Your task to perform on an android device: Open Amazon Image 0: 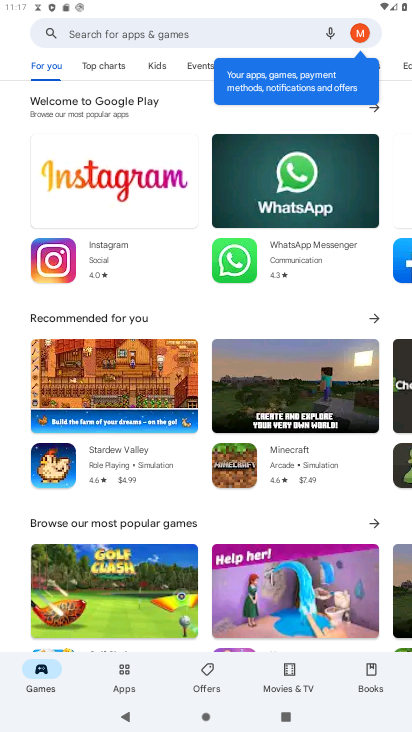
Step 0: press home button
Your task to perform on an android device: Open Amazon Image 1: 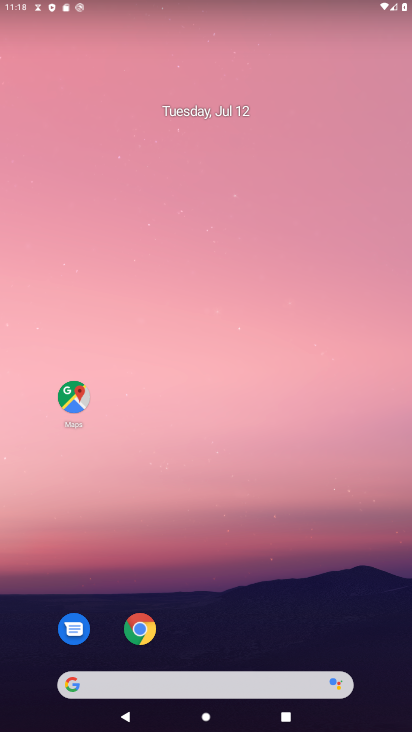
Step 1: drag from (272, 538) to (309, 11)
Your task to perform on an android device: Open Amazon Image 2: 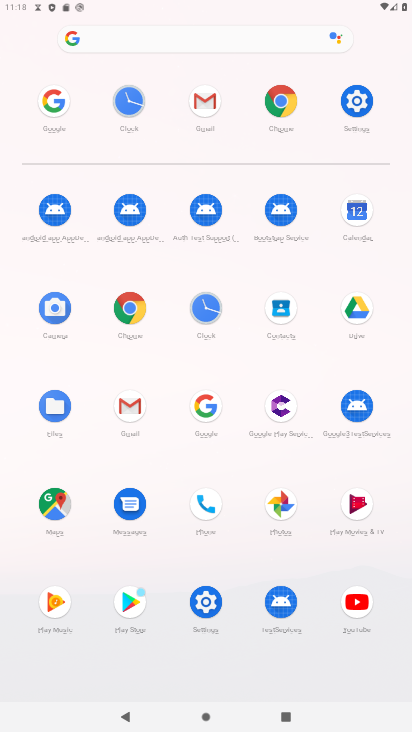
Step 2: click (288, 112)
Your task to perform on an android device: Open Amazon Image 3: 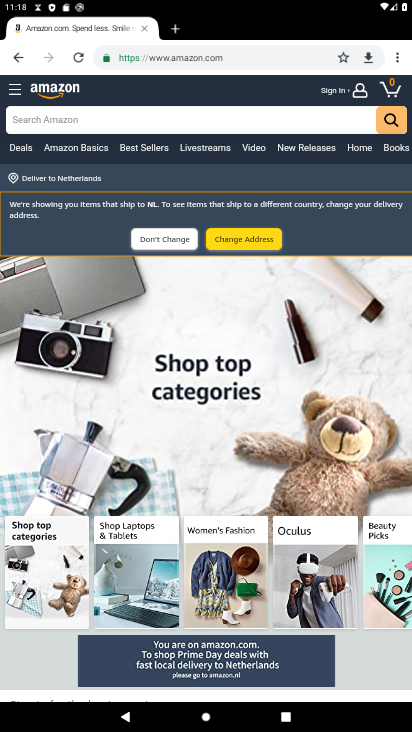
Step 3: task complete